Your task to perform on an android device: turn on the 12-hour format for clock Image 0: 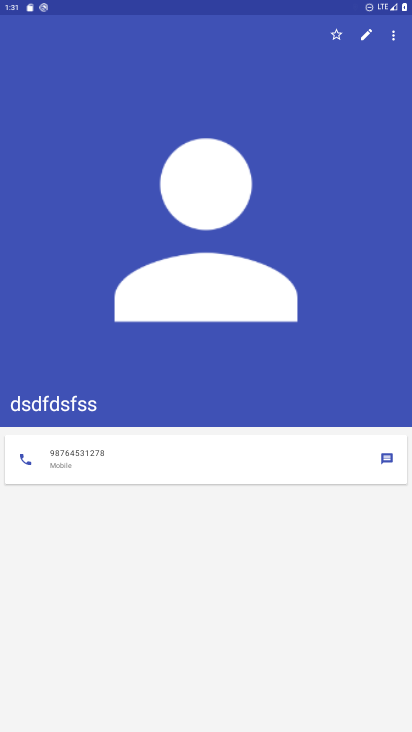
Step 0: press home button
Your task to perform on an android device: turn on the 12-hour format for clock Image 1: 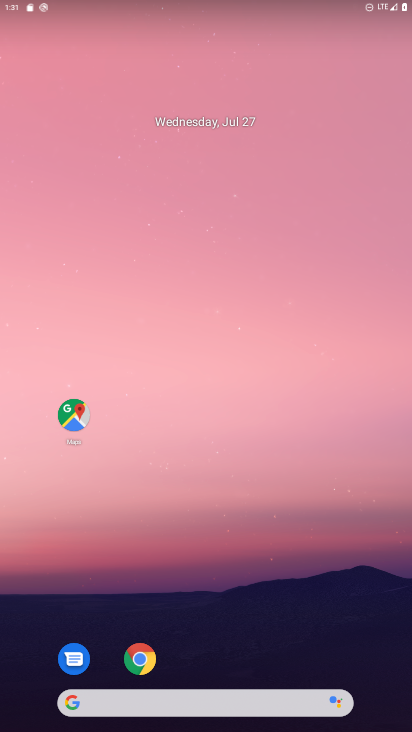
Step 1: drag from (200, 642) to (191, 367)
Your task to perform on an android device: turn on the 12-hour format for clock Image 2: 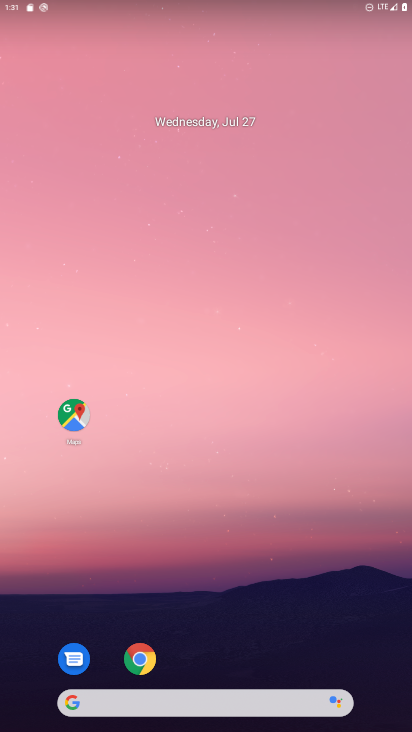
Step 2: drag from (230, 669) to (204, 2)
Your task to perform on an android device: turn on the 12-hour format for clock Image 3: 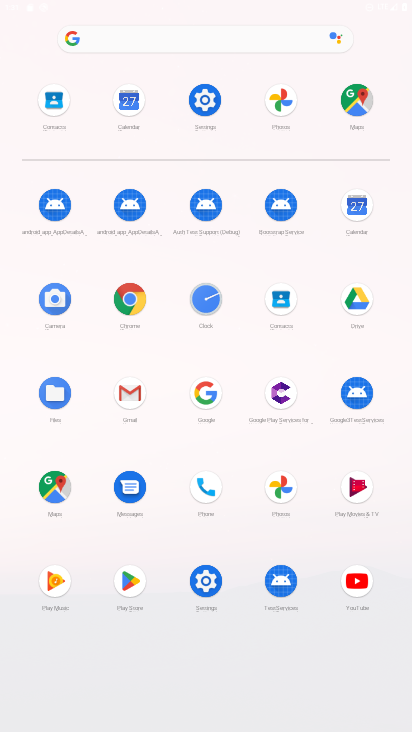
Step 3: click (215, 313)
Your task to perform on an android device: turn on the 12-hour format for clock Image 4: 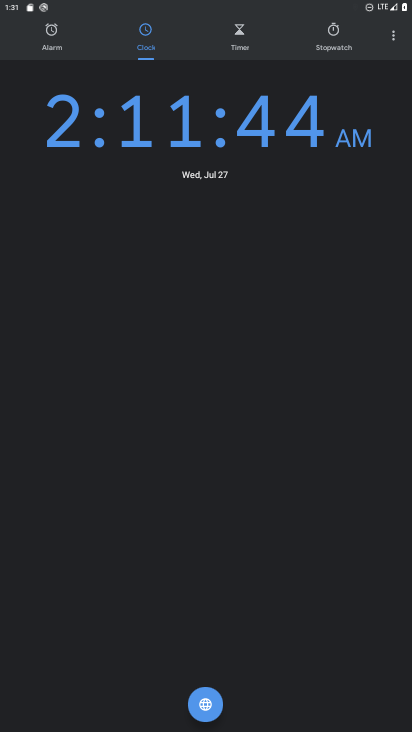
Step 4: click (396, 35)
Your task to perform on an android device: turn on the 12-hour format for clock Image 5: 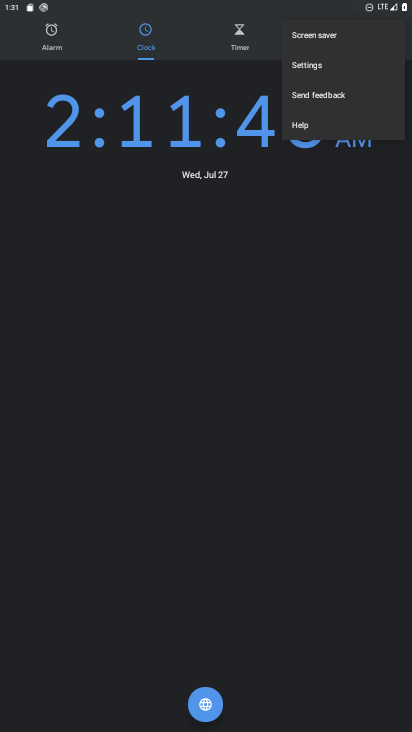
Step 5: click (318, 66)
Your task to perform on an android device: turn on the 12-hour format for clock Image 6: 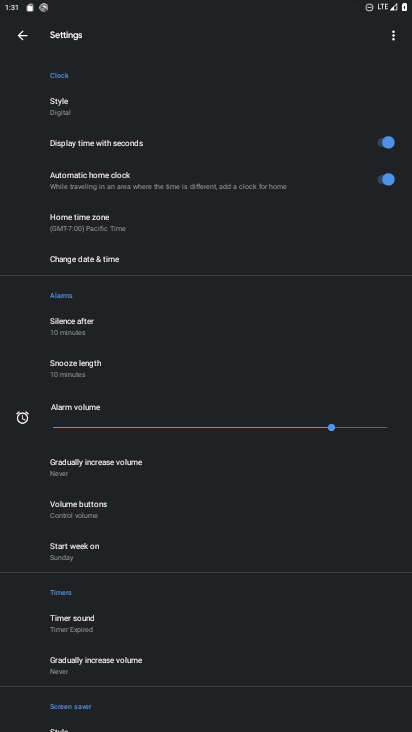
Step 6: click (115, 218)
Your task to perform on an android device: turn on the 12-hour format for clock Image 7: 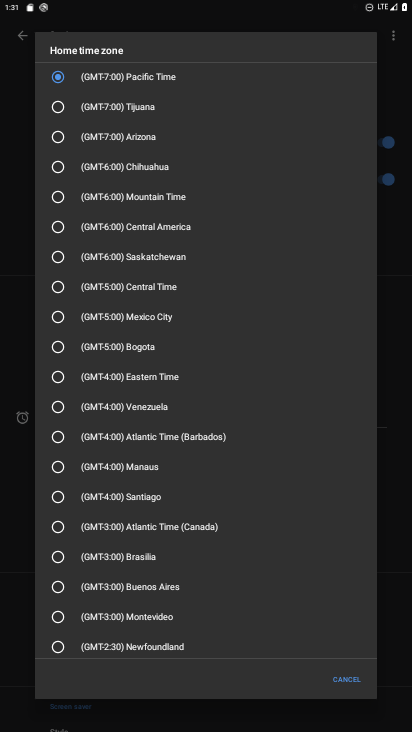
Step 7: click (350, 679)
Your task to perform on an android device: turn on the 12-hour format for clock Image 8: 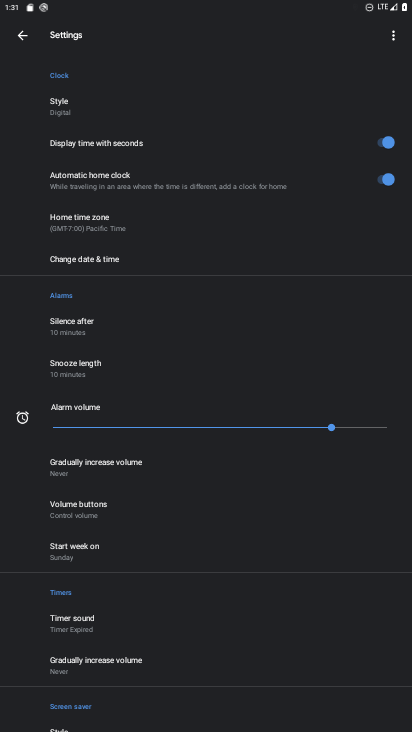
Step 8: drag from (225, 575) to (210, 229)
Your task to perform on an android device: turn on the 12-hour format for clock Image 9: 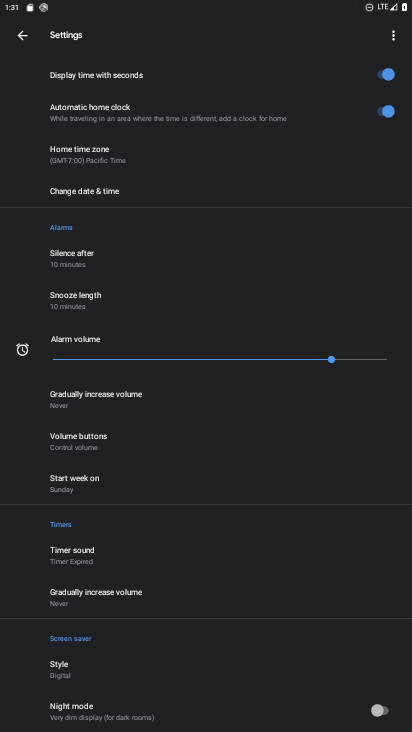
Step 9: click (148, 562)
Your task to perform on an android device: turn on the 12-hour format for clock Image 10: 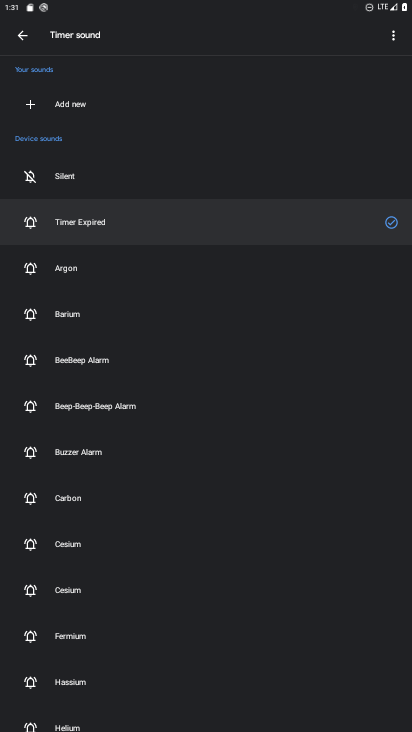
Step 10: click (21, 36)
Your task to perform on an android device: turn on the 12-hour format for clock Image 11: 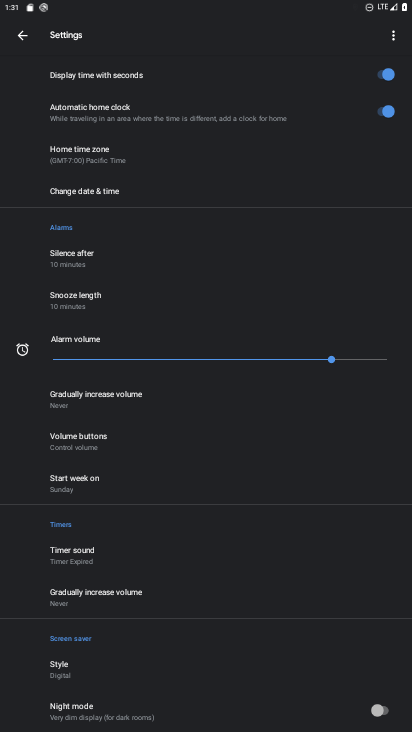
Step 11: drag from (147, 673) to (185, 252)
Your task to perform on an android device: turn on the 12-hour format for clock Image 12: 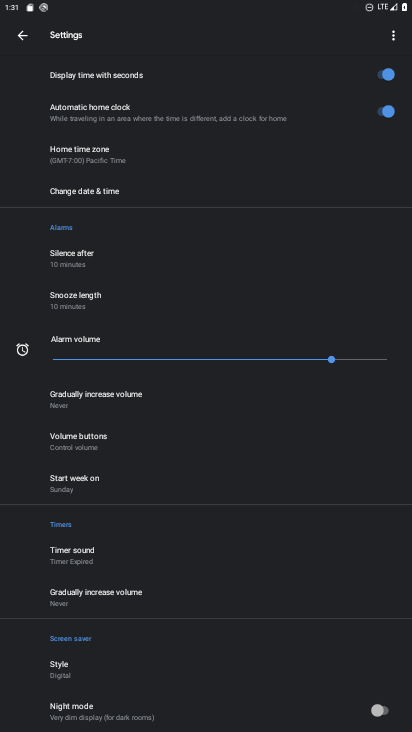
Step 12: drag from (165, 654) to (169, 285)
Your task to perform on an android device: turn on the 12-hour format for clock Image 13: 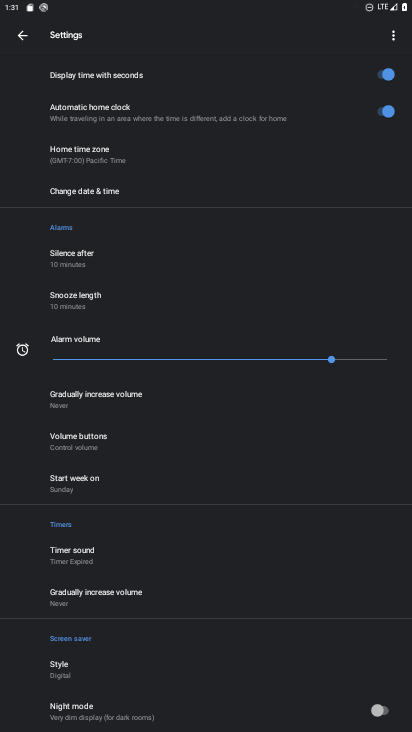
Step 13: click (113, 190)
Your task to perform on an android device: turn on the 12-hour format for clock Image 14: 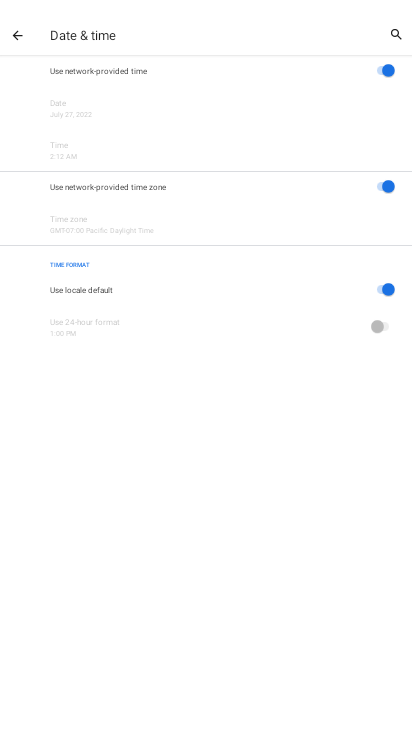
Step 14: click (390, 287)
Your task to perform on an android device: turn on the 12-hour format for clock Image 15: 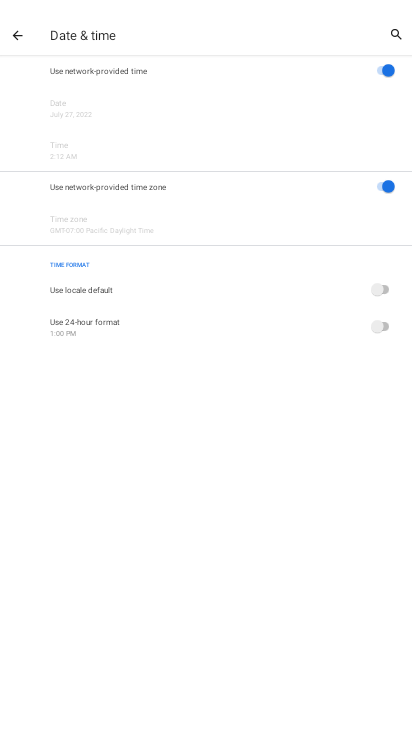
Step 15: click (224, 340)
Your task to perform on an android device: turn on the 12-hour format for clock Image 16: 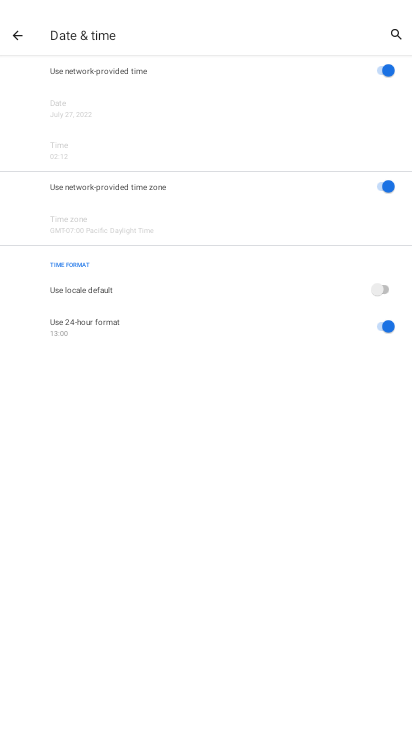
Step 16: click (253, 335)
Your task to perform on an android device: turn on the 12-hour format for clock Image 17: 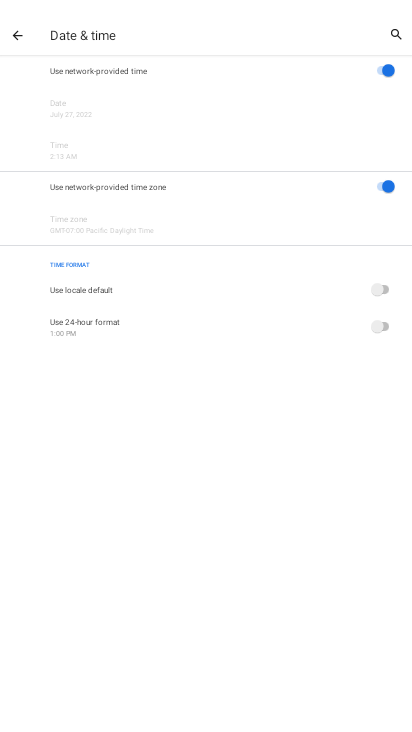
Step 17: task complete